Your task to perform on an android device: Search for Italian restaurants on Maps Image 0: 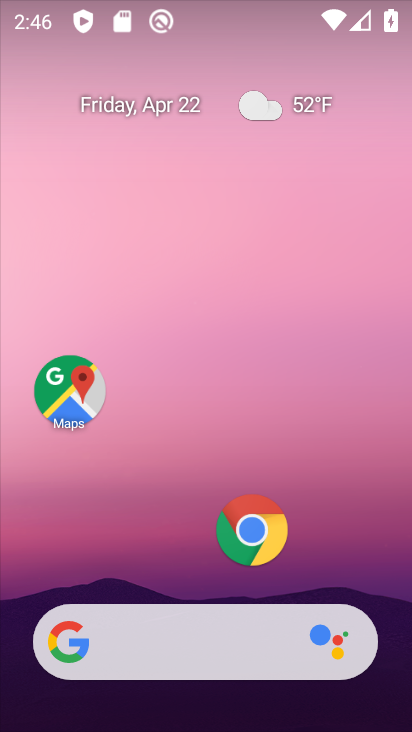
Step 0: click (68, 378)
Your task to perform on an android device: Search for Italian restaurants on Maps Image 1: 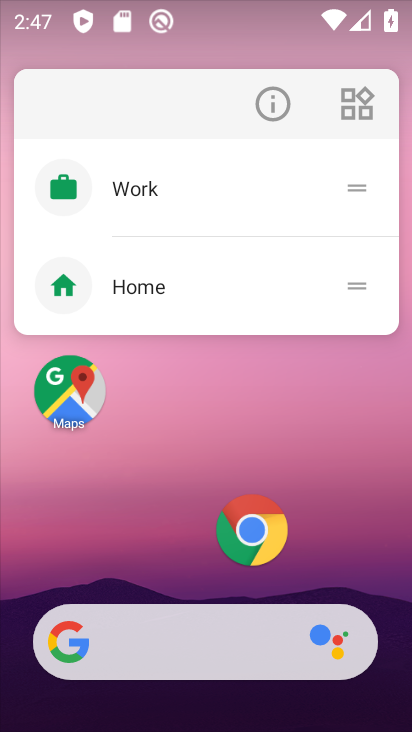
Step 1: click (83, 387)
Your task to perform on an android device: Search for Italian restaurants on Maps Image 2: 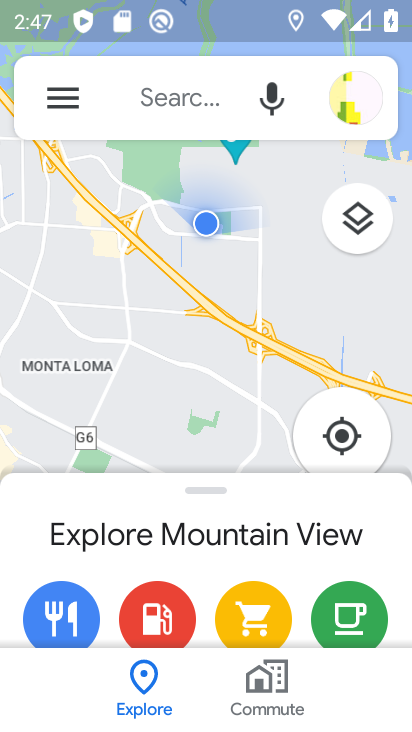
Step 2: click (157, 120)
Your task to perform on an android device: Search for Italian restaurants on Maps Image 3: 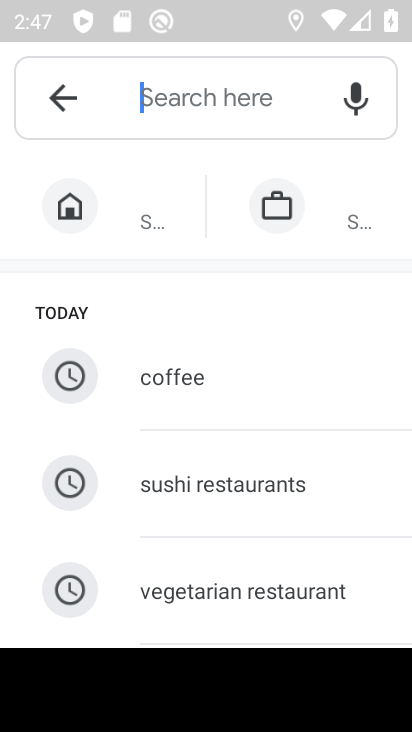
Step 3: drag from (210, 583) to (241, 218)
Your task to perform on an android device: Search for Italian restaurants on Maps Image 4: 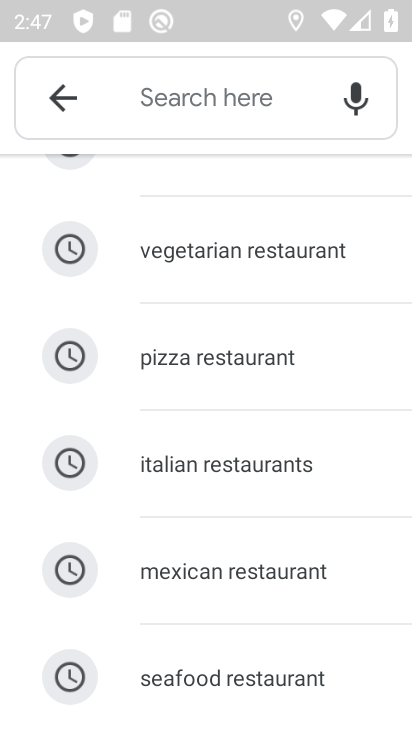
Step 4: click (242, 468)
Your task to perform on an android device: Search for Italian restaurants on Maps Image 5: 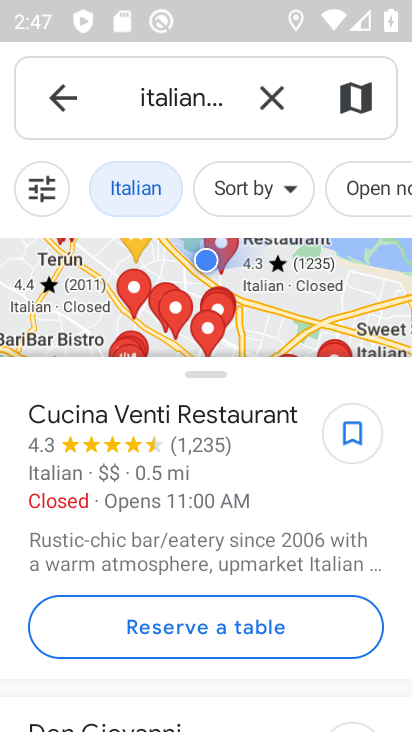
Step 5: task complete